Your task to perform on an android device: turn on wifi Image 0: 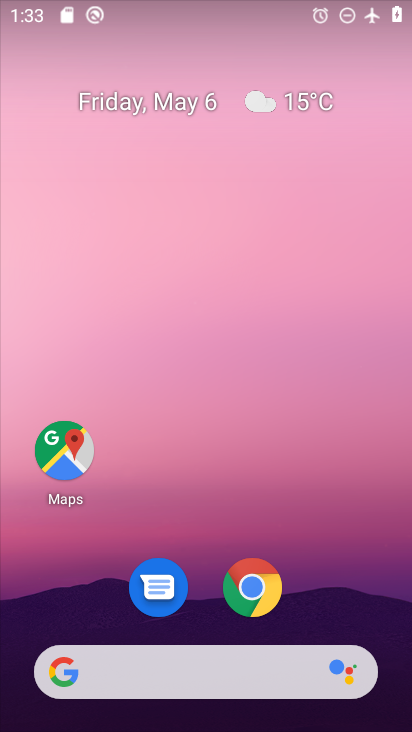
Step 0: drag from (330, 513) to (285, 19)
Your task to perform on an android device: turn on wifi Image 1: 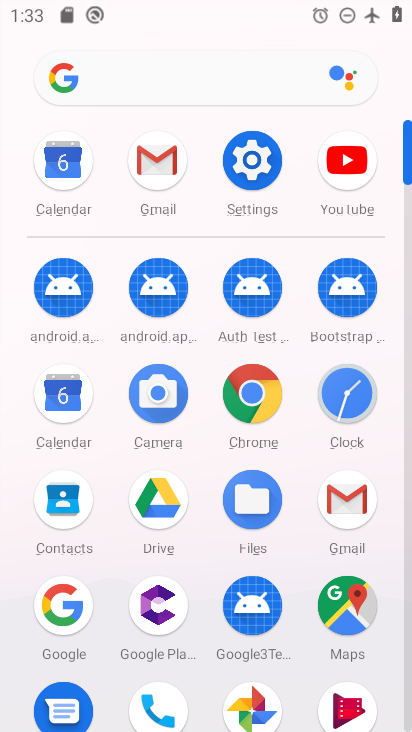
Step 1: click (247, 147)
Your task to perform on an android device: turn on wifi Image 2: 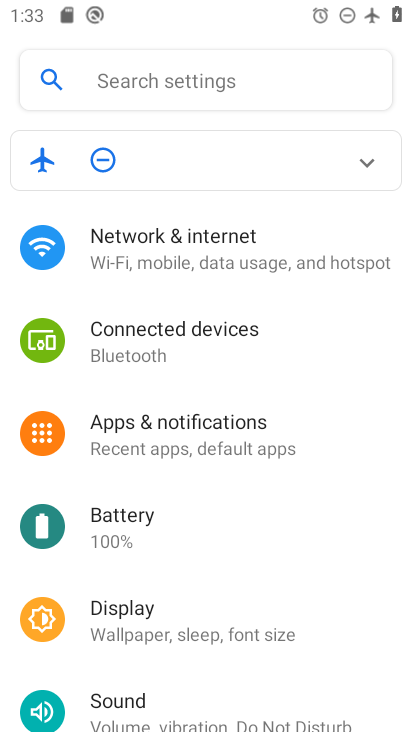
Step 2: click (202, 239)
Your task to perform on an android device: turn on wifi Image 3: 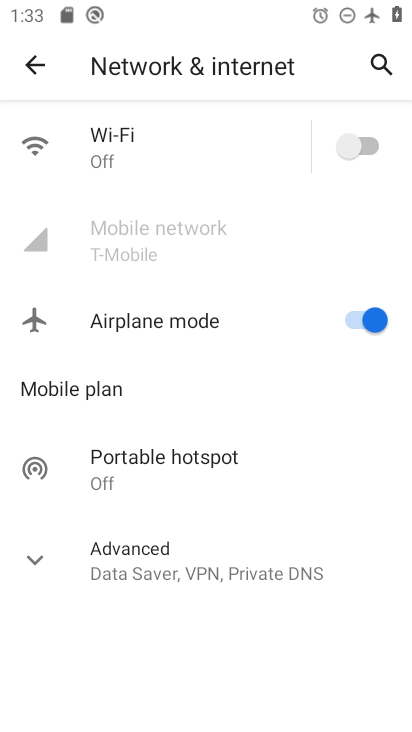
Step 3: click (349, 143)
Your task to perform on an android device: turn on wifi Image 4: 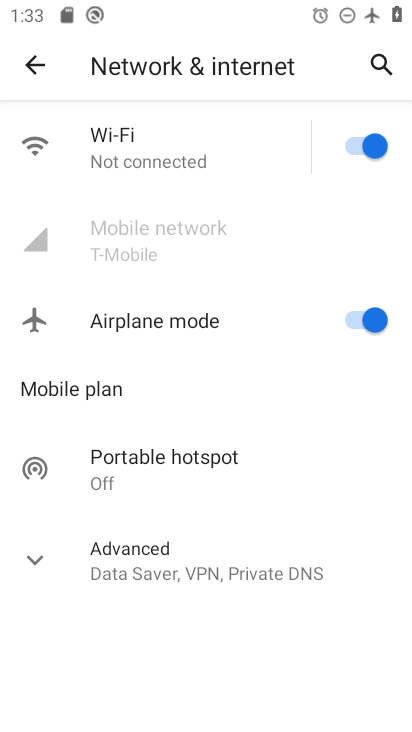
Step 4: task complete